Your task to perform on an android device: turn on priority inbox in the gmail app Image 0: 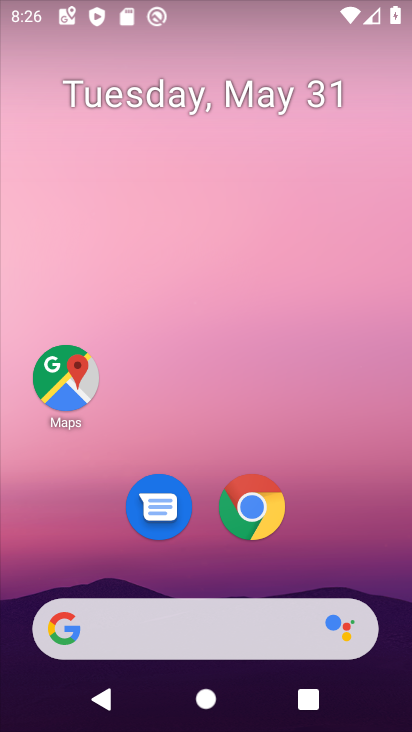
Step 0: drag from (366, 563) to (225, 290)
Your task to perform on an android device: turn on priority inbox in the gmail app Image 1: 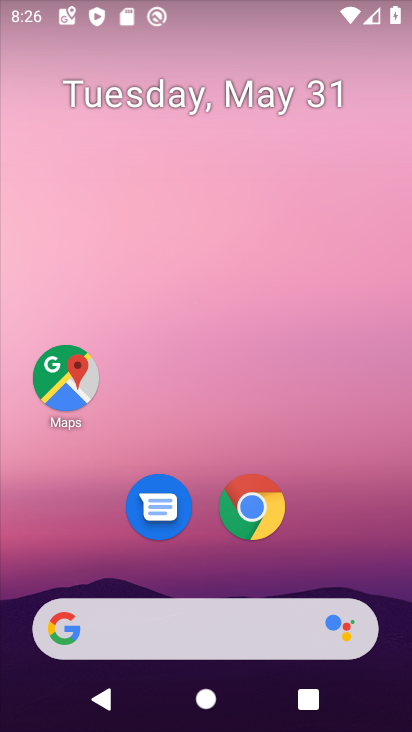
Step 1: drag from (399, 506) to (220, 188)
Your task to perform on an android device: turn on priority inbox in the gmail app Image 2: 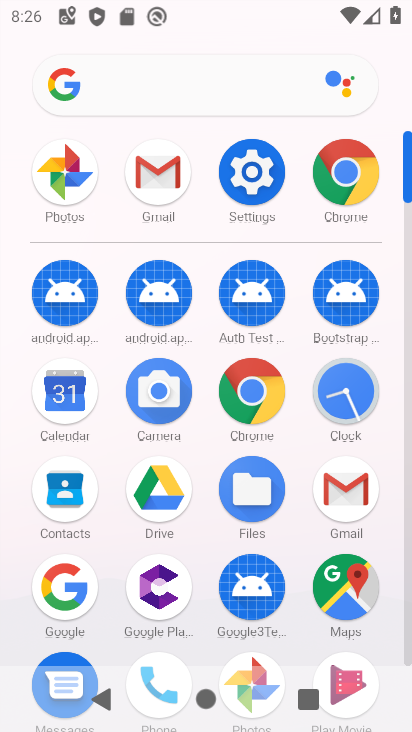
Step 2: click (344, 486)
Your task to perform on an android device: turn on priority inbox in the gmail app Image 3: 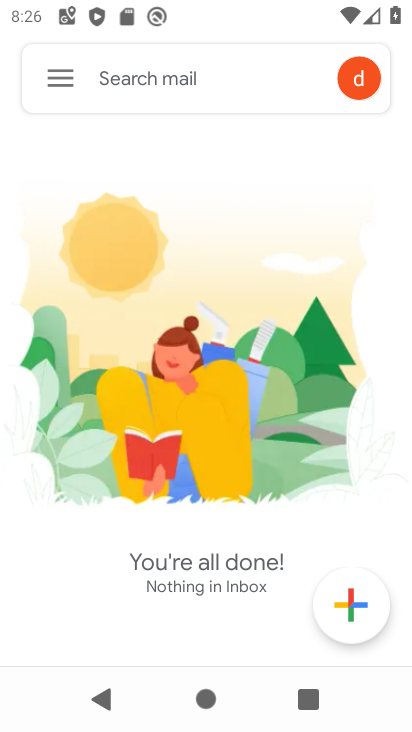
Step 3: click (52, 72)
Your task to perform on an android device: turn on priority inbox in the gmail app Image 4: 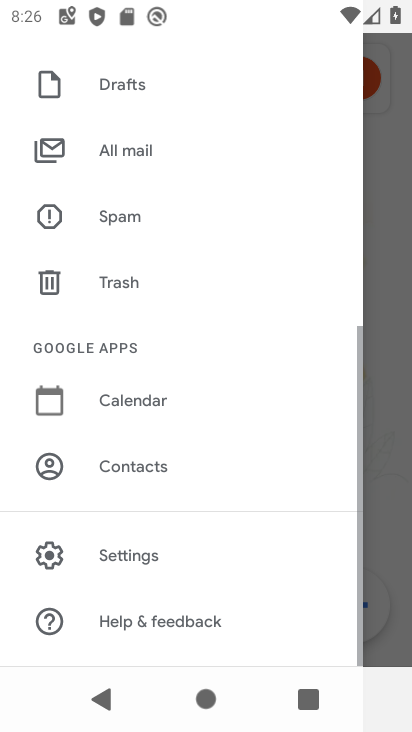
Step 4: click (150, 545)
Your task to perform on an android device: turn on priority inbox in the gmail app Image 5: 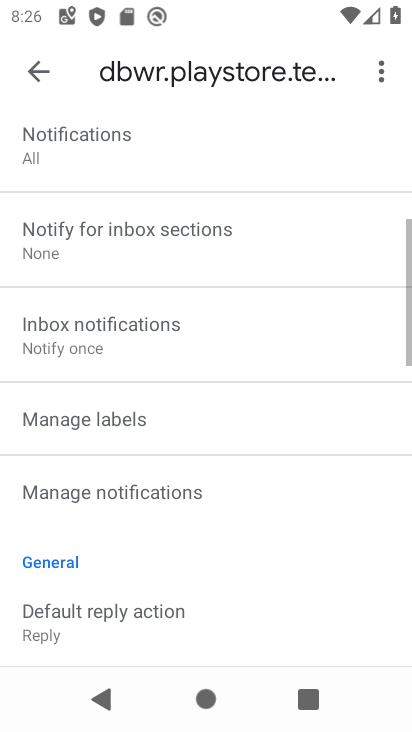
Step 5: drag from (139, 532) to (116, 283)
Your task to perform on an android device: turn on priority inbox in the gmail app Image 6: 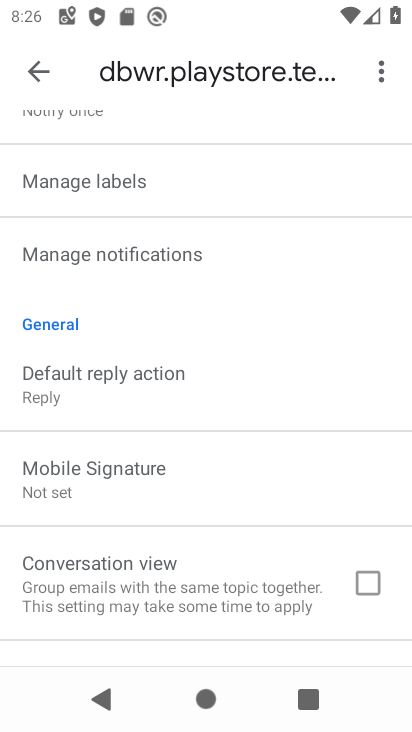
Step 6: drag from (111, 282) to (22, 630)
Your task to perform on an android device: turn on priority inbox in the gmail app Image 7: 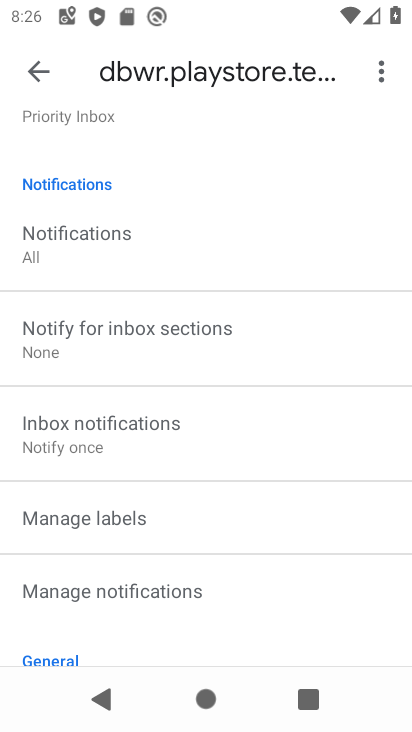
Step 7: drag from (136, 140) to (164, 402)
Your task to perform on an android device: turn on priority inbox in the gmail app Image 8: 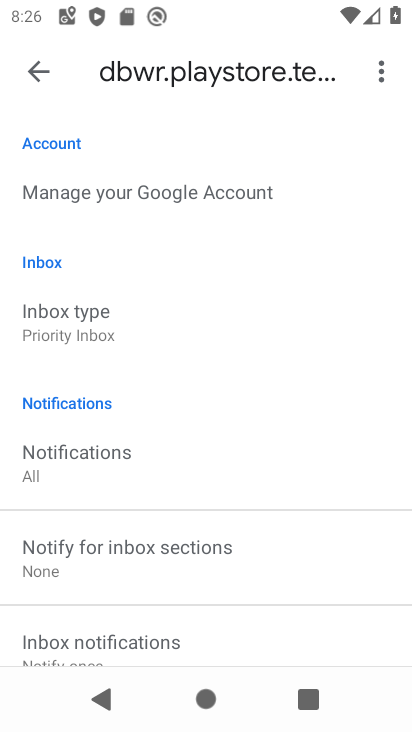
Step 8: click (93, 316)
Your task to perform on an android device: turn on priority inbox in the gmail app Image 9: 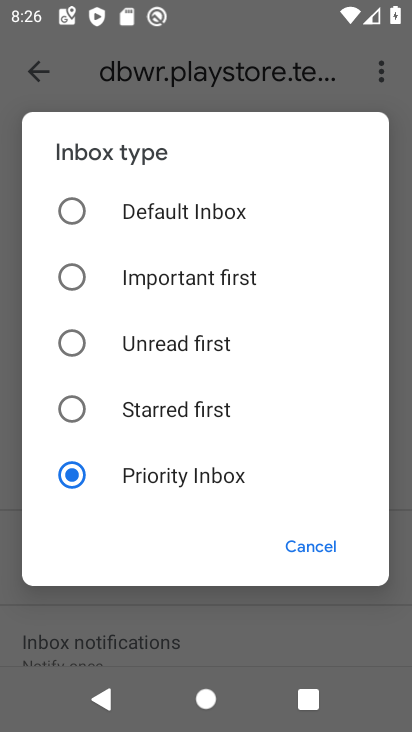
Step 9: task complete